Your task to perform on an android device: What's on my calendar tomorrow? Image 0: 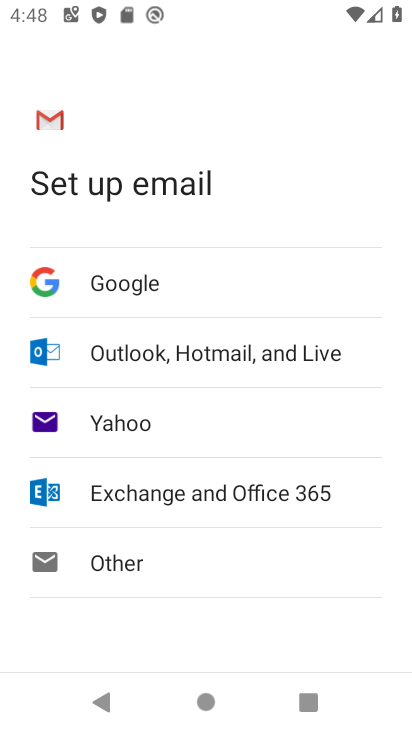
Step 0: press home button
Your task to perform on an android device: What's on my calendar tomorrow? Image 1: 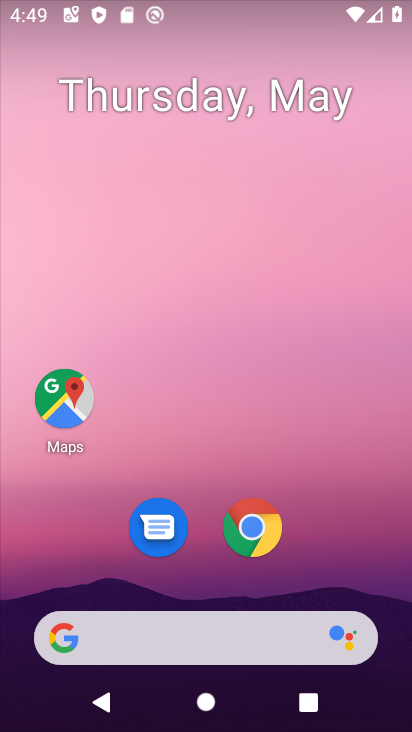
Step 1: drag from (324, 553) to (313, 3)
Your task to perform on an android device: What's on my calendar tomorrow? Image 2: 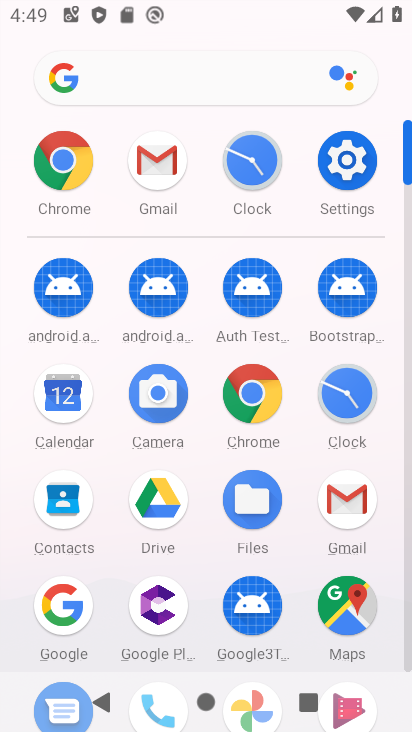
Step 2: click (53, 415)
Your task to perform on an android device: What's on my calendar tomorrow? Image 3: 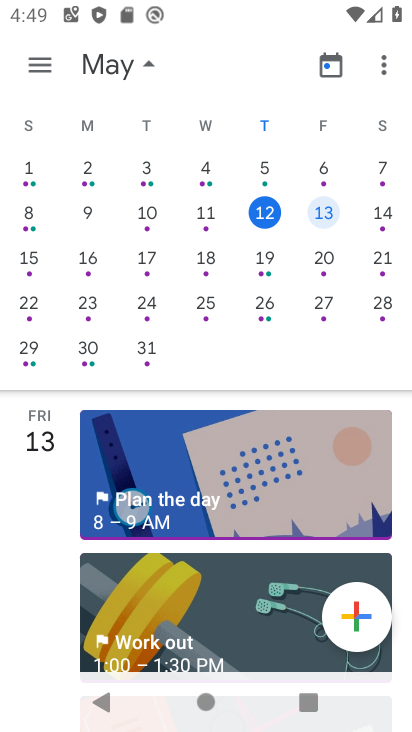
Step 3: task complete